Your task to perform on an android device: Go to accessibility settings Image 0: 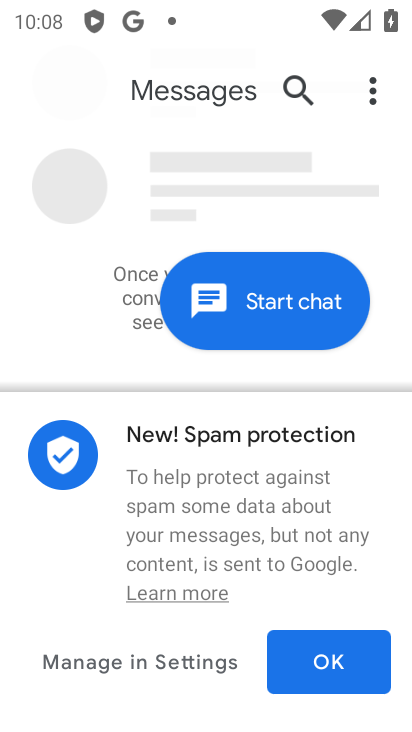
Step 0: press home button
Your task to perform on an android device: Go to accessibility settings Image 1: 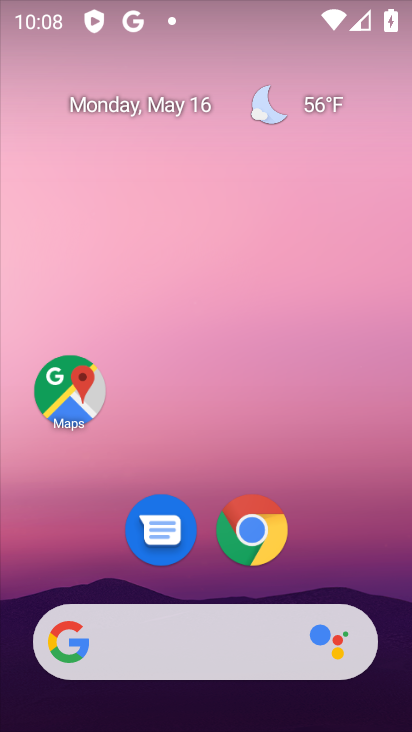
Step 1: drag from (327, 483) to (333, 162)
Your task to perform on an android device: Go to accessibility settings Image 2: 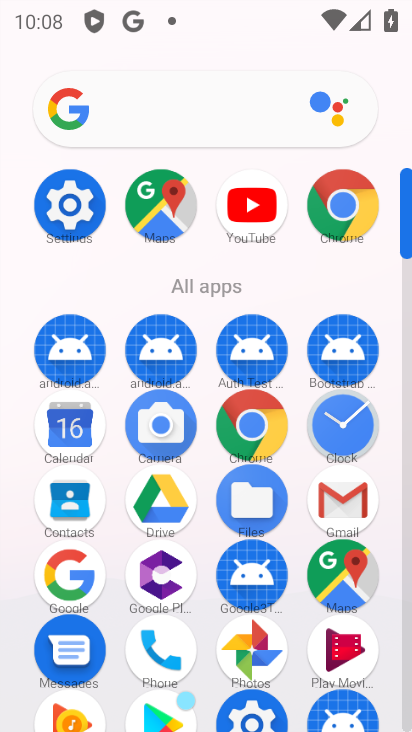
Step 2: click (83, 207)
Your task to perform on an android device: Go to accessibility settings Image 3: 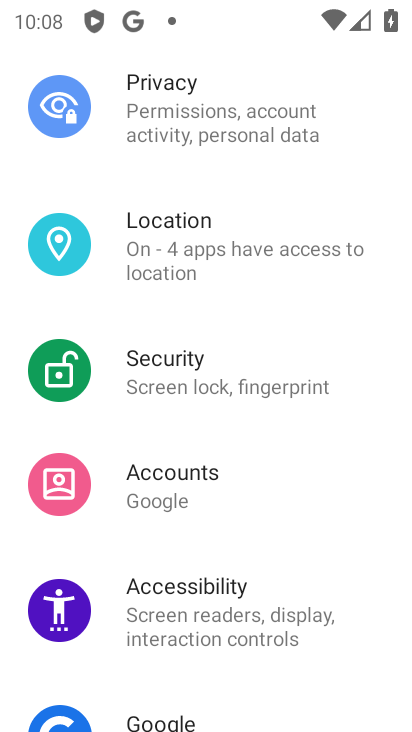
Step 3: drag from (309, 659) to (317, 458)
Your task to perform on an android device: Go to accessibility settings Image 4: 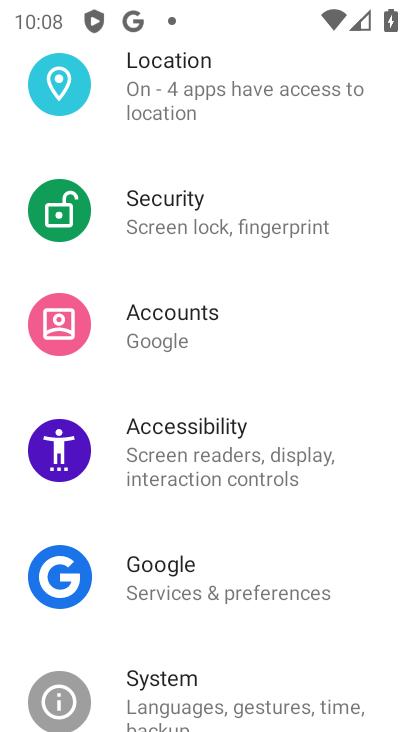
Step 4: drag from (342, 621) to (366, 330)
Your task to perform on an android device: Go to accessibility settings Image 5: 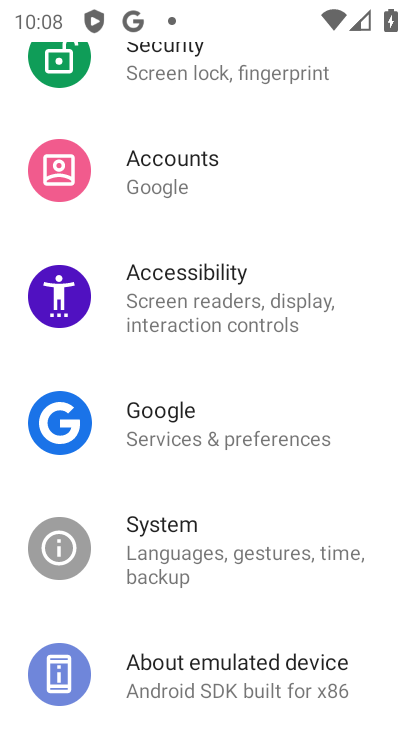
Step 5: drag from (350, 577) to (386, 364)
Your task to perform on an android device: Go to accessibility settings Image 6: 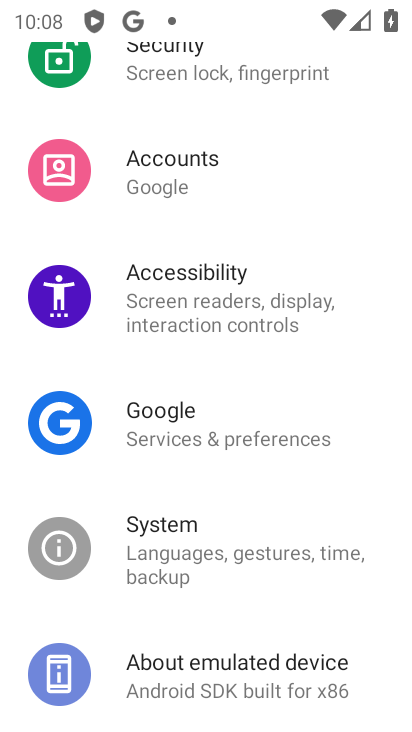
Step 6: drag from (349, 285) to (351, 436)
Your task to perform on an android device: Go to accessibility settings Image 7: 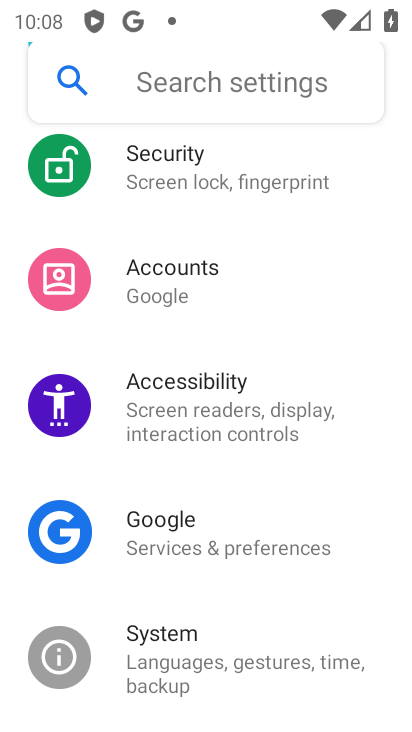
Step 7: drag from (347, 270) to (348, 399)
Your task to perform on an android device: Go to accessibility settings Image 8: 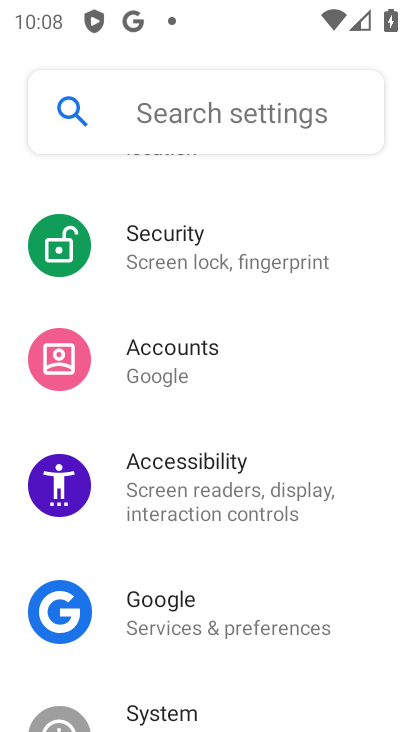
Step 8: drag from (360, 230) to (360, 398)
Your task to perform on an android device: Go to accessibility settings Image 9: 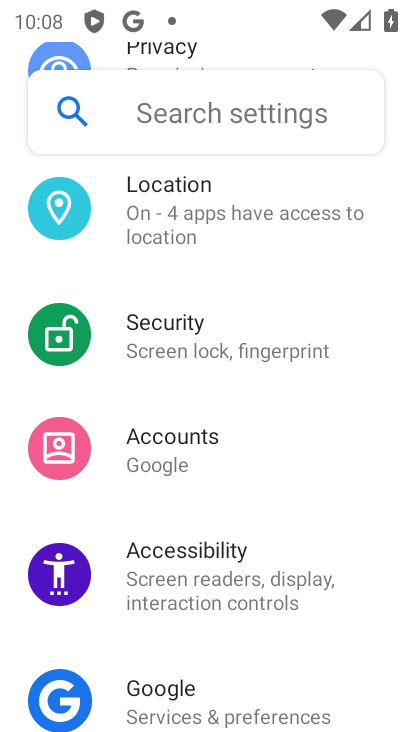
Step 9: drag from (347, 285) to (343, 441)
Your task to perform on an android device: Go to accessibility settings Image 10: 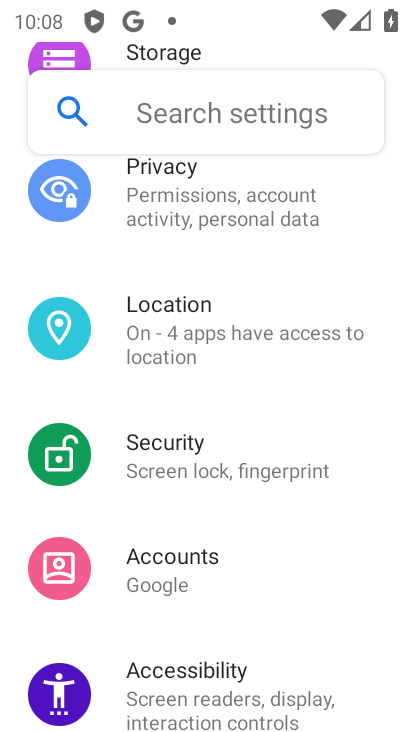
Step 10: drag from (293, 594) to (324, 404)
Your task to perform on an android device: Go to accessibility settings Image 11: 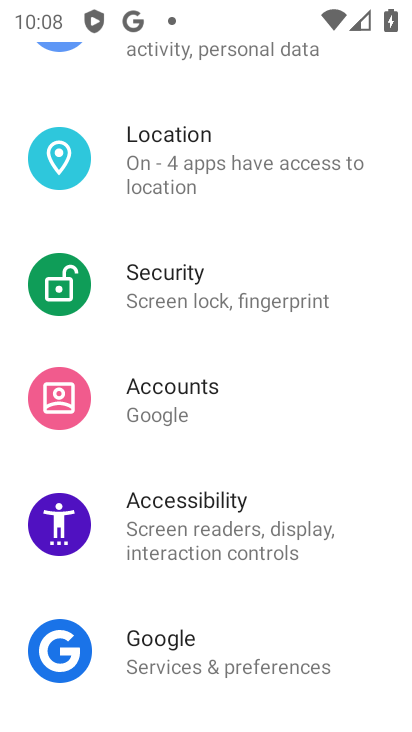
Step 11: click (246, 545)
Your task to perform on an android device: Go to accessibility settings Image 12: 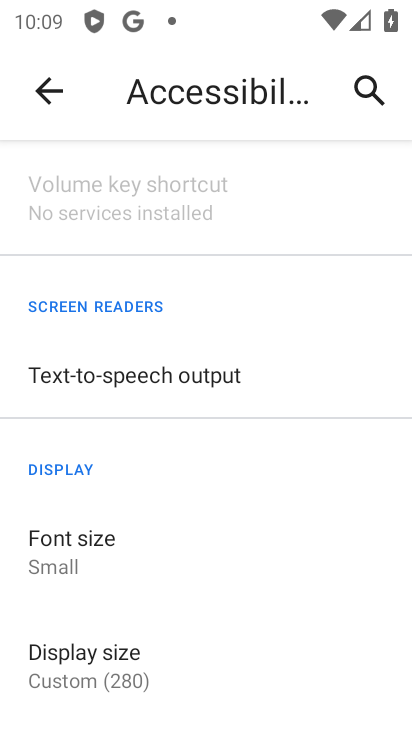
Step 12: task complete